Your task to perform on an android device: Turn off the flashlight Image 0: 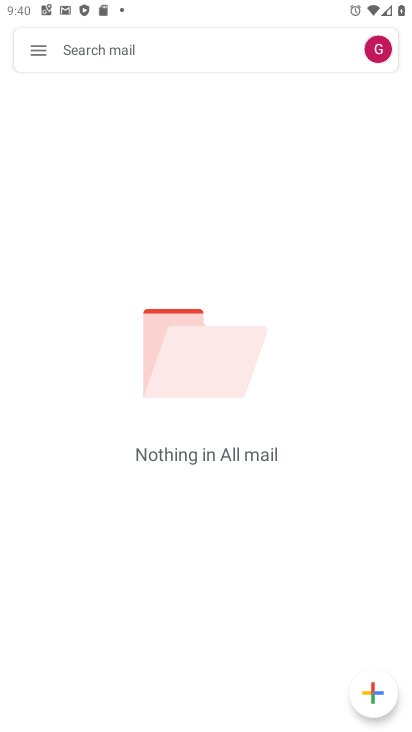
Step 0: press home button
Your task to perform on an android device: Turn off the flashlight Image 1: 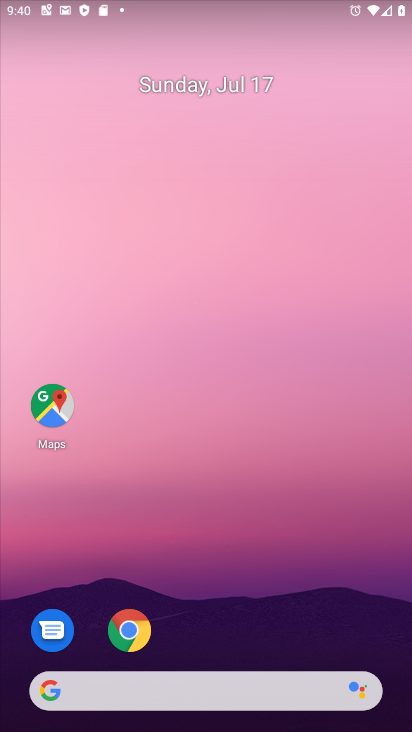
Step 1: task complete